Your task to perform on an android device: Add apple airpods to the cart on amazon.com Image 0: 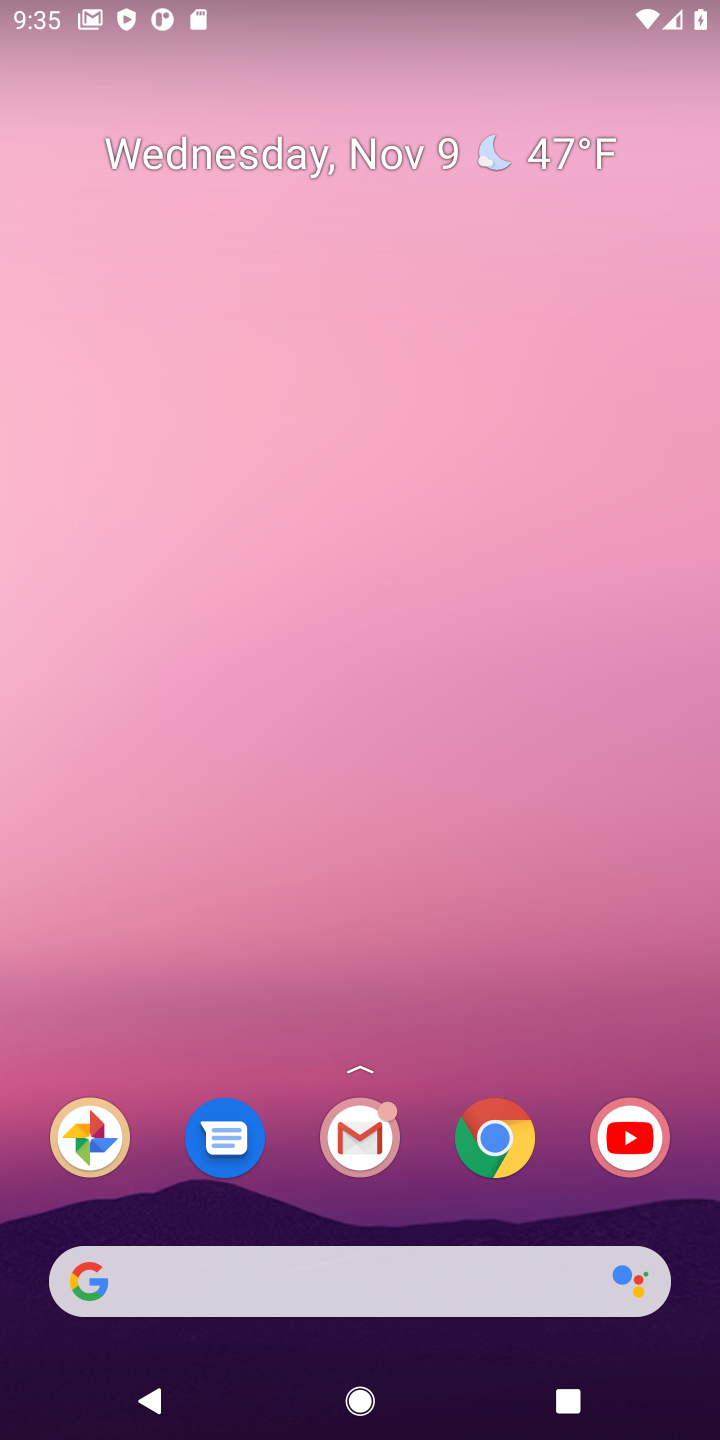
Step 0: drag from (338, 680) to (334, 146)
Your task to perform on an android device: Add apple airpods to the cart on amazon.com Image 1: 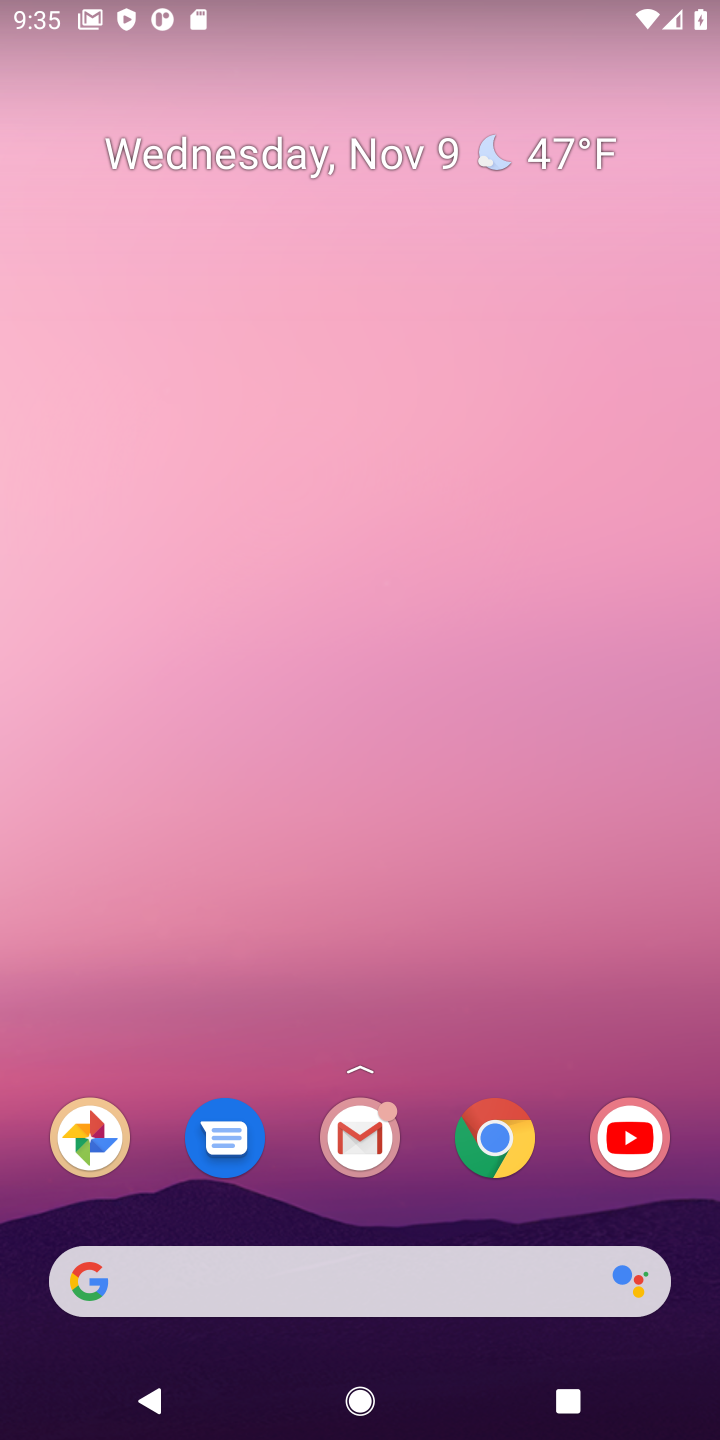
Step 1: drag from (482, 157) to (507, 24)
Your task to perform on an android device: Add apple airpods to the cart on amazon.com Image 2: 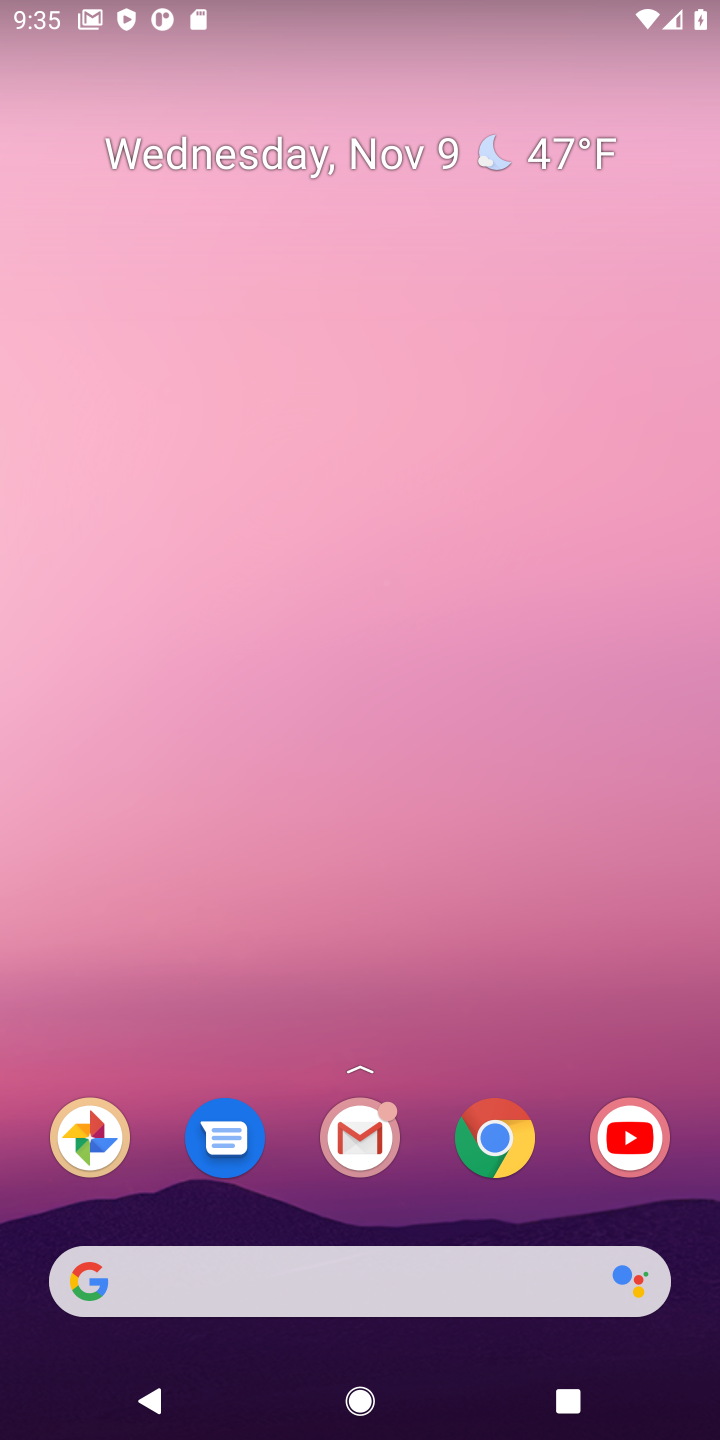
Step 2: drag from (433, 1083) to (387, 51)
Your task to perform on an android device: Add apple airpods to the cart on amazon.com Image 3: 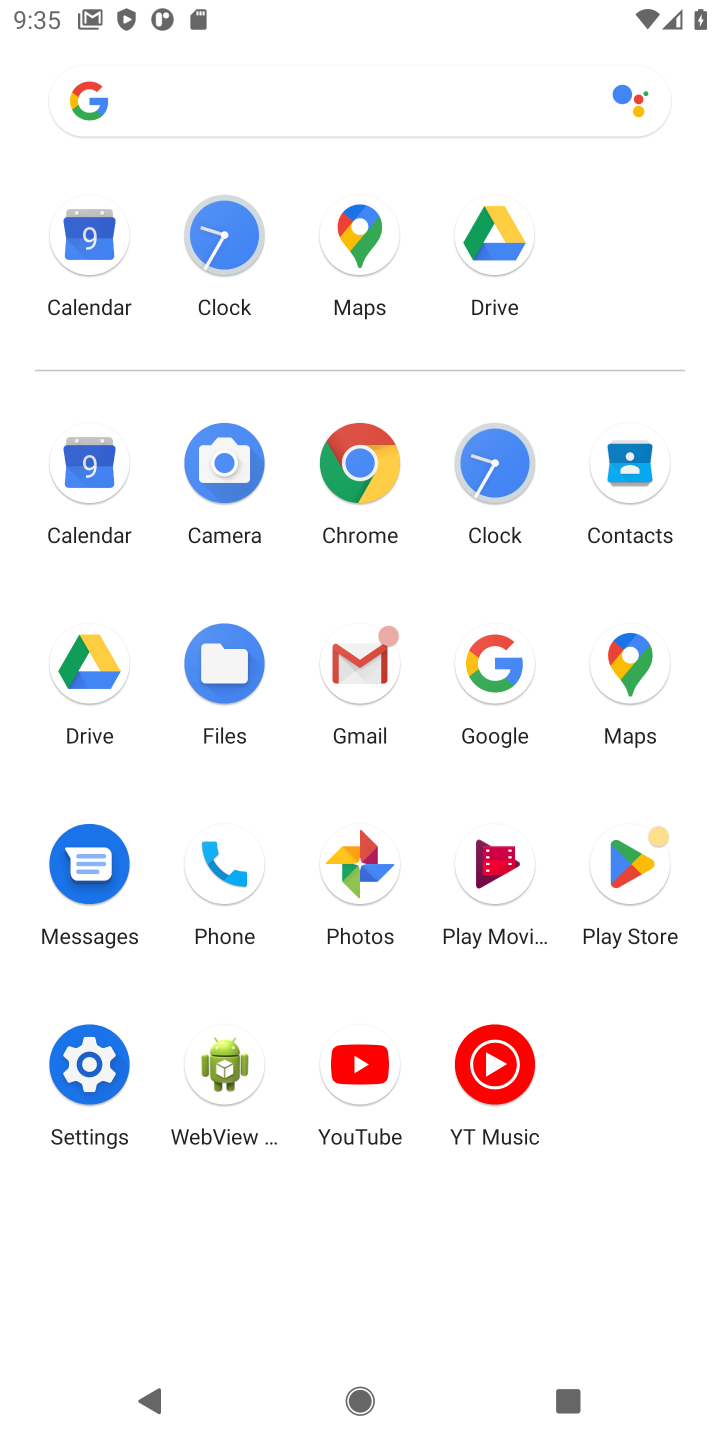
Step 3: click (353, 495)
Your task to perform on an android device: Add apple airpods to the cart on amazon.com Image 4: 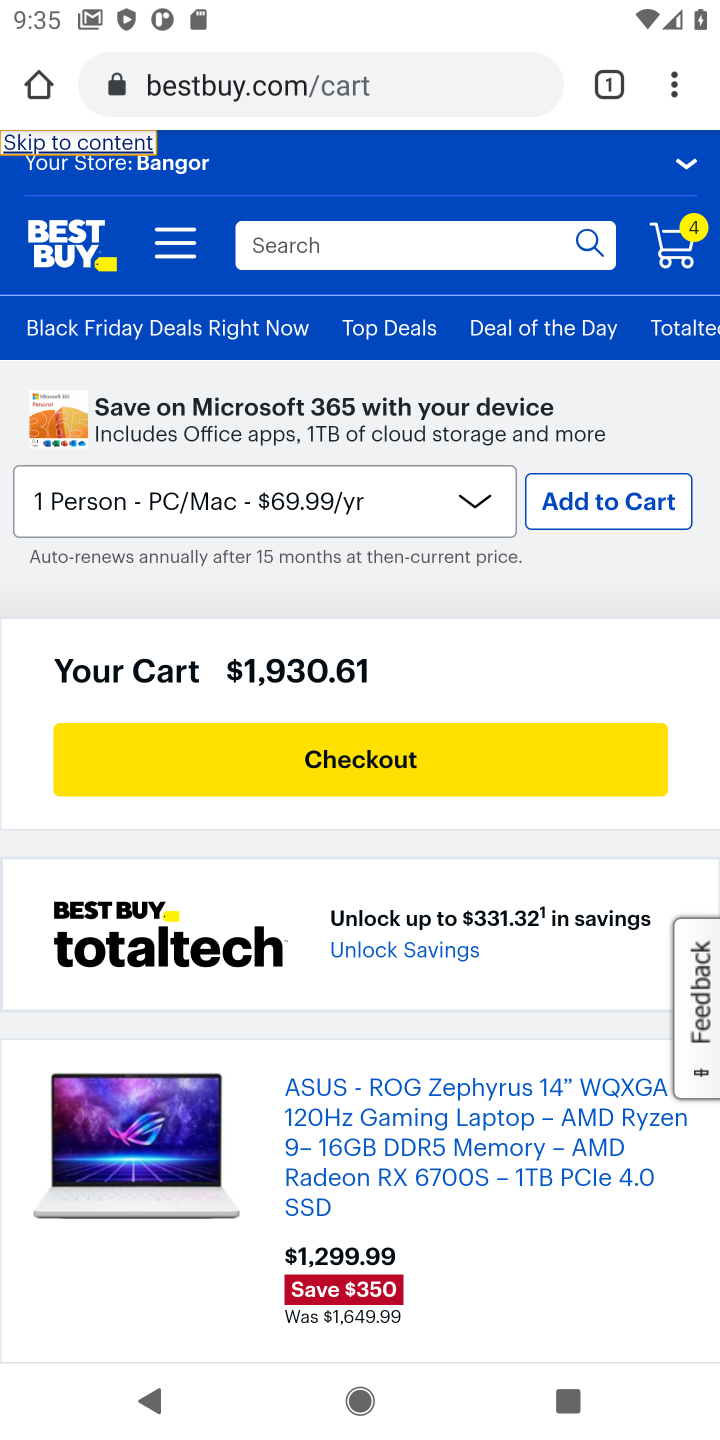
Step 4: click (452, 80)
Your task to perform on an android device: Add apple airpods to the cart on amazon.com Image 5: 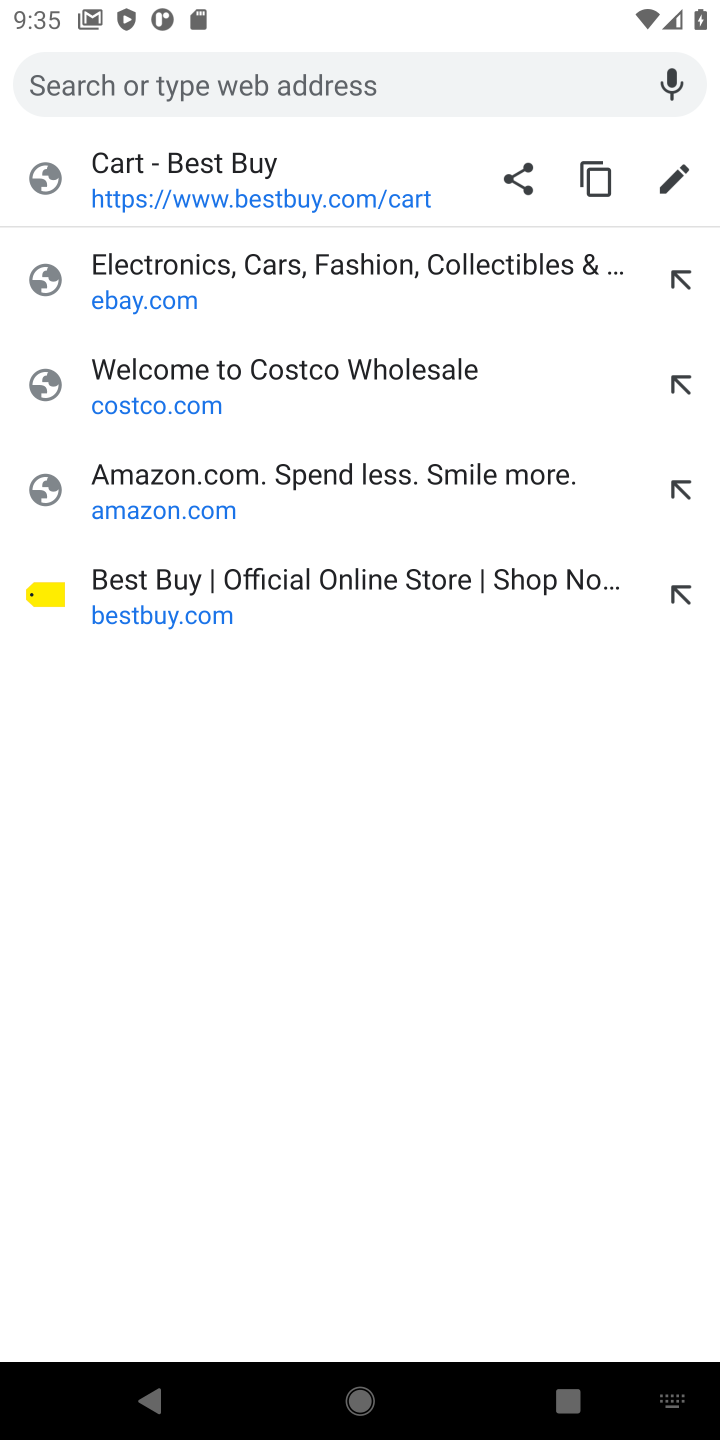
Step 5: type "amazon.com"
Your task to perform on an android device: Add apple airpods to the cart on amazon.com Image 6: 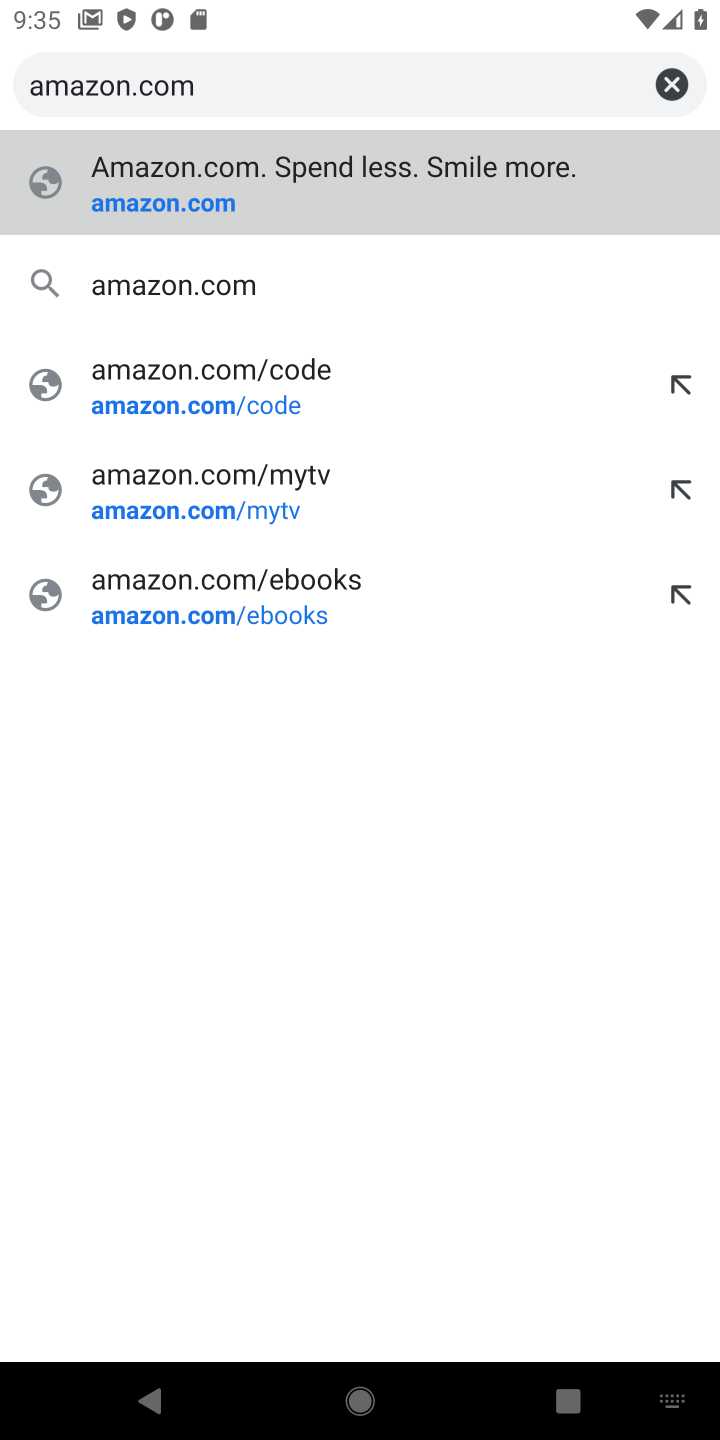
Step 6: press enter
Your task to perform on an android device: Add apple airpods to the cart on amazon.com Image 7: 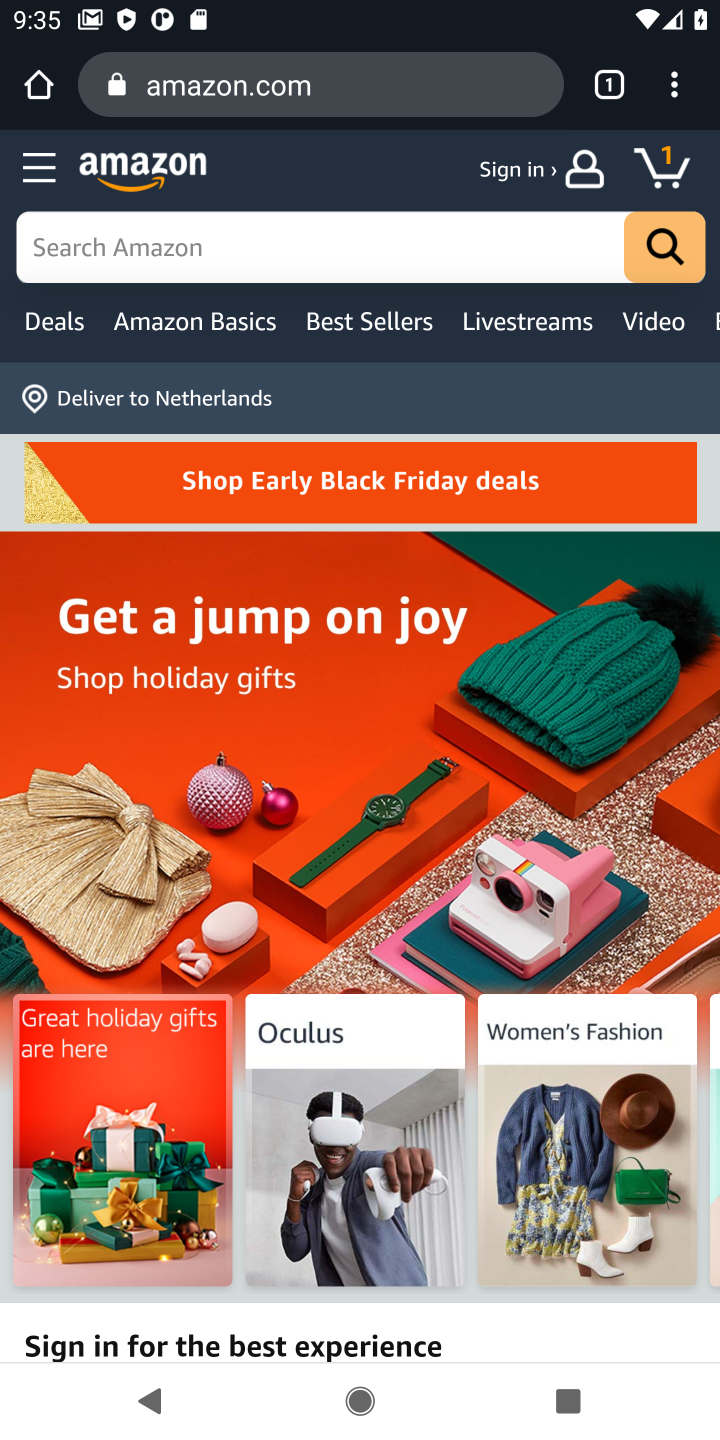
Step 7: click (336, 253)
Your task to perform on an android device: Add apple airpods to the cart on amazon.com Image 8: 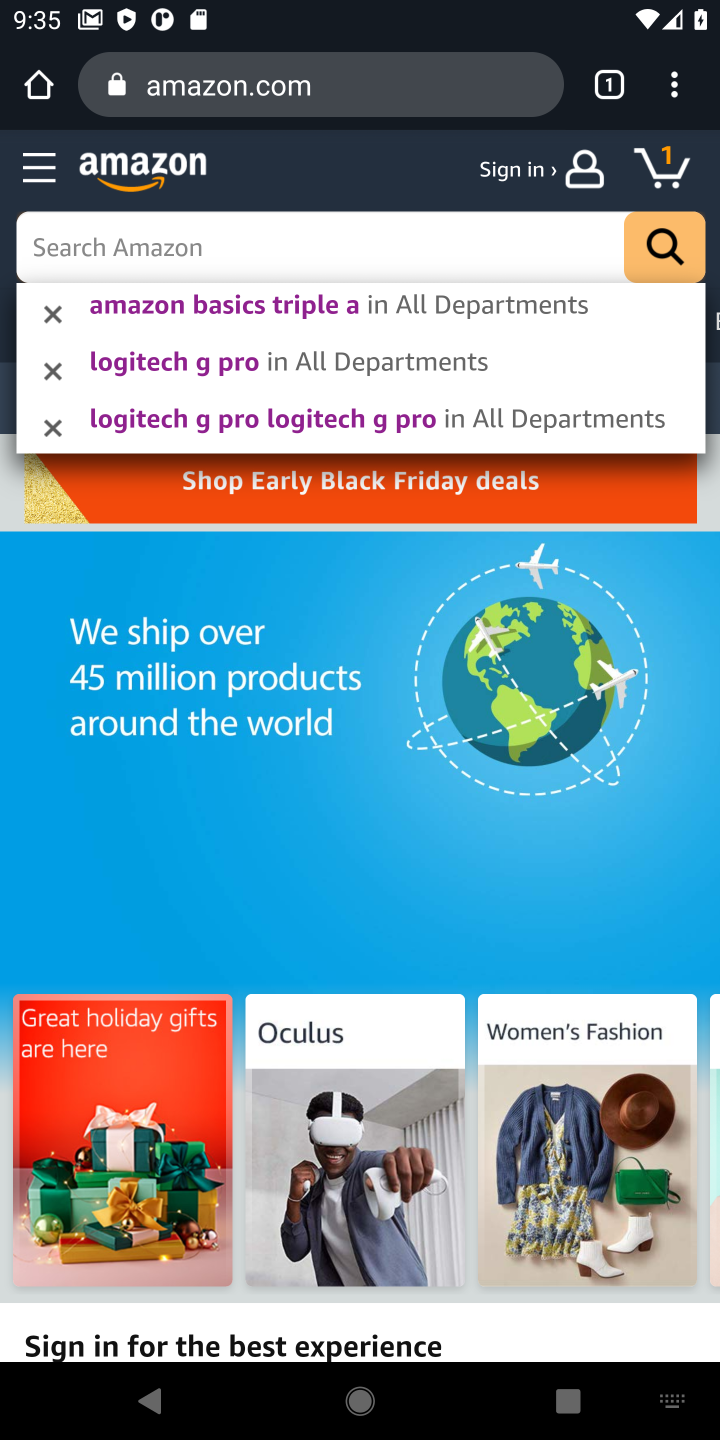
Step 8: type "apple airpods "
Your task to perform on an android device: Add apple airpods to the cart on amazon.com Image 9: 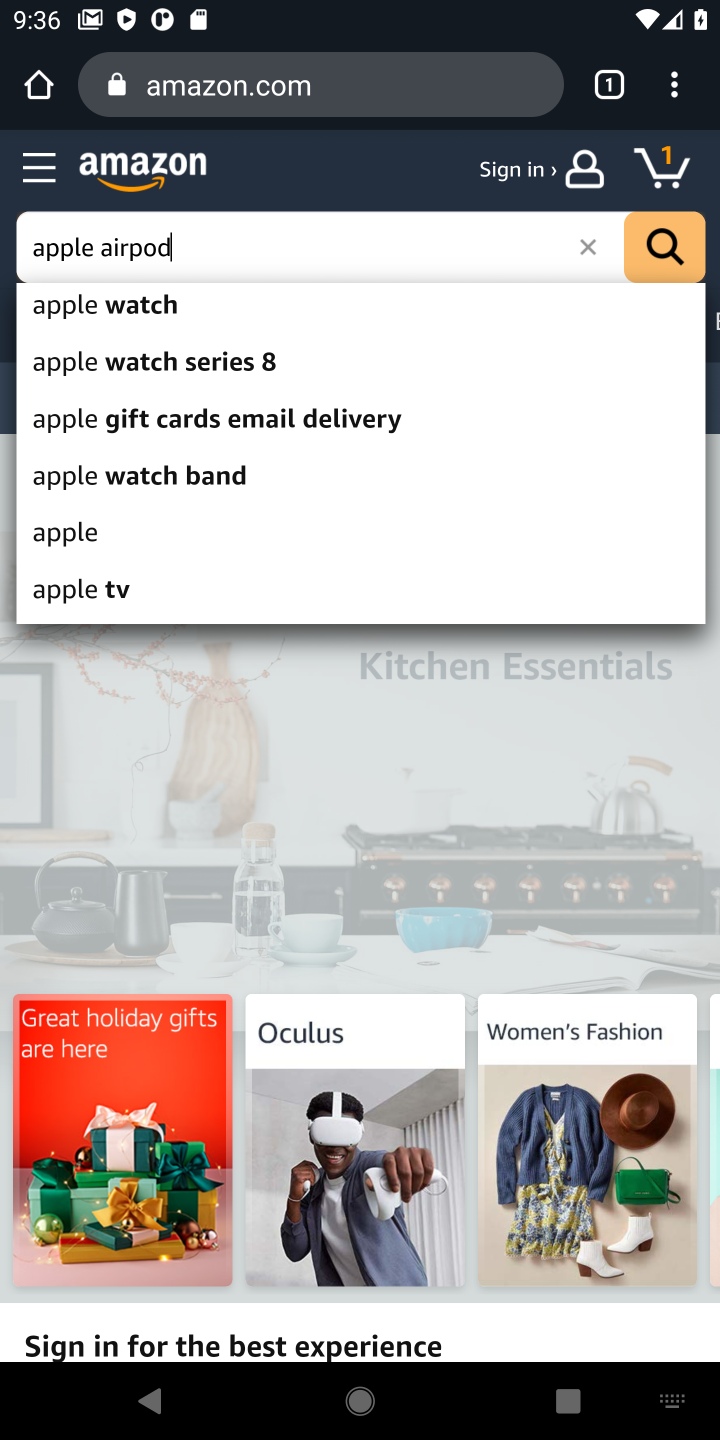
Step 9: press enter
Your task to perform on an android device: Add apple airpods to the cart on amazon.com Image 10: 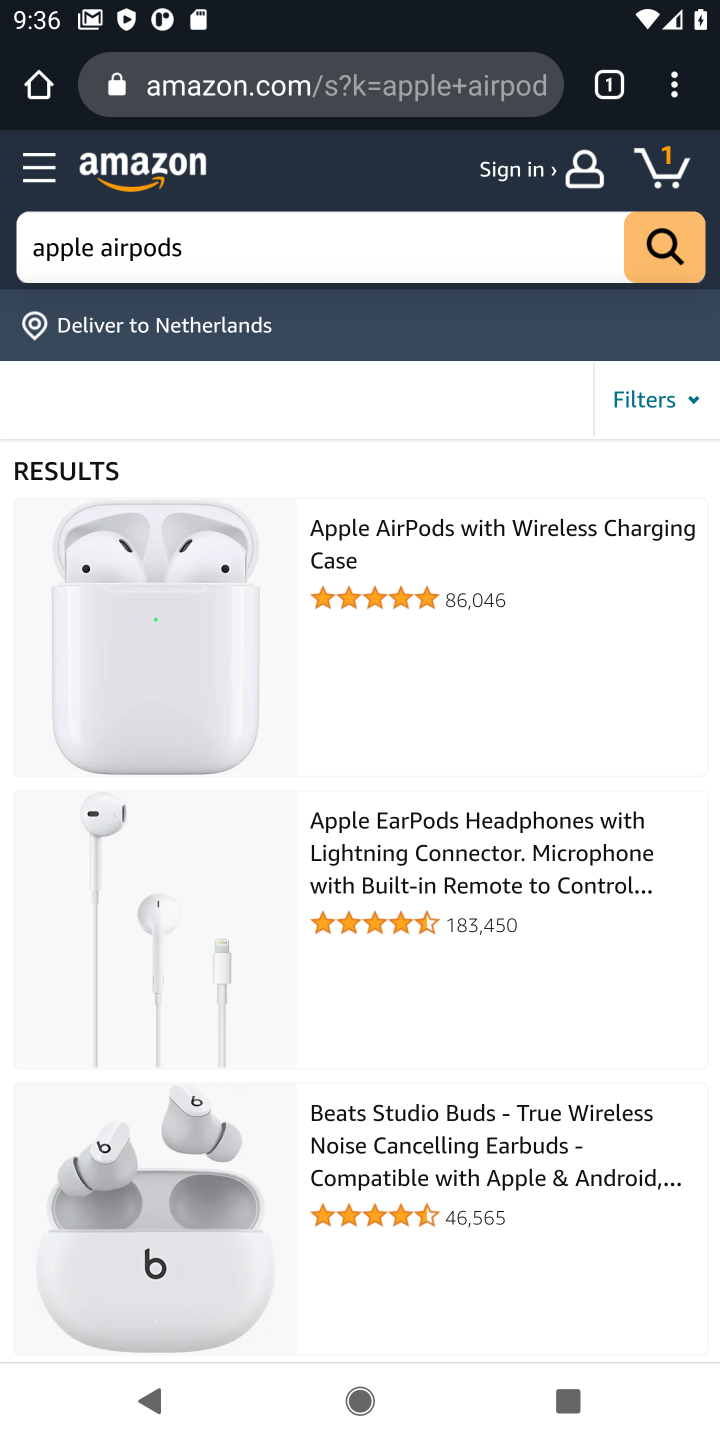
Step 10: click (198, 596)
Your task to perform on an android device: Add apple airpods to the cart on amazon.com Image 11: 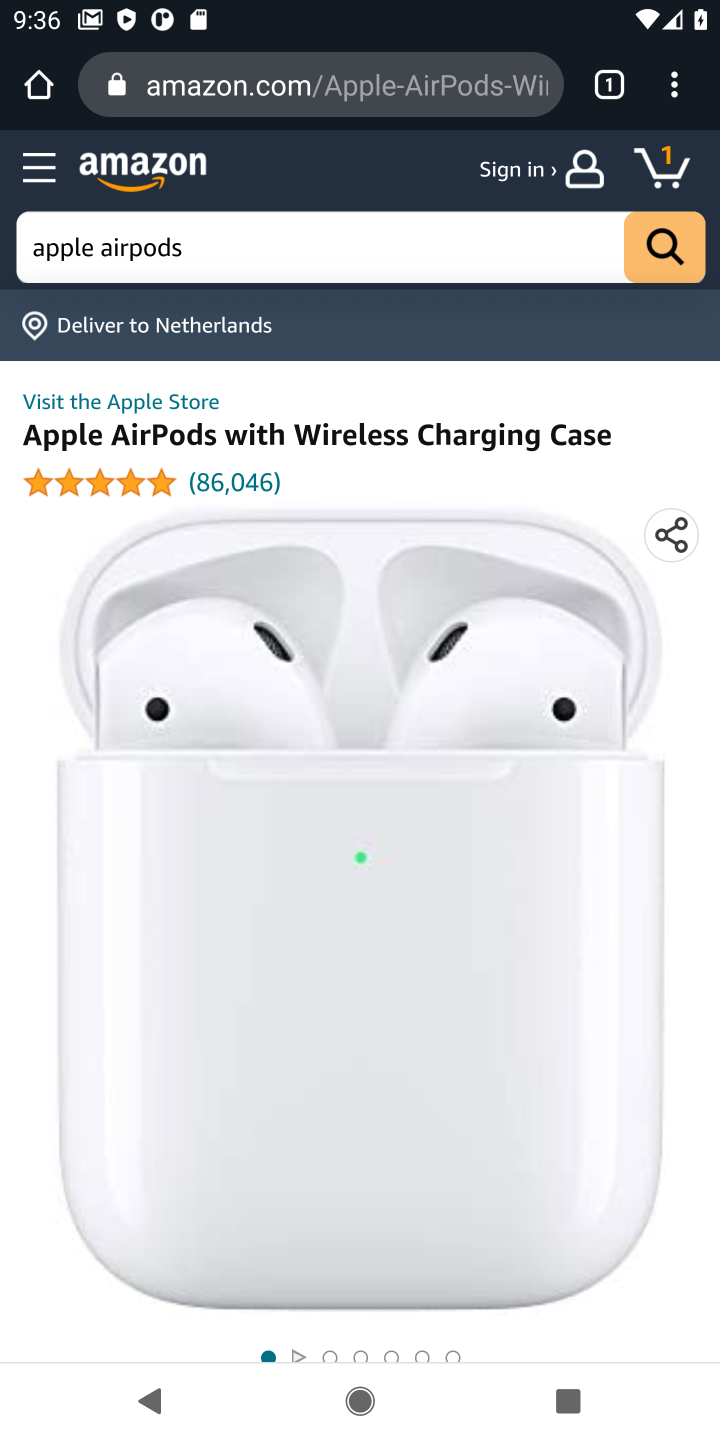
Step 11: task complete